Your task to perform on an android device: Open CNN.com Image 0: 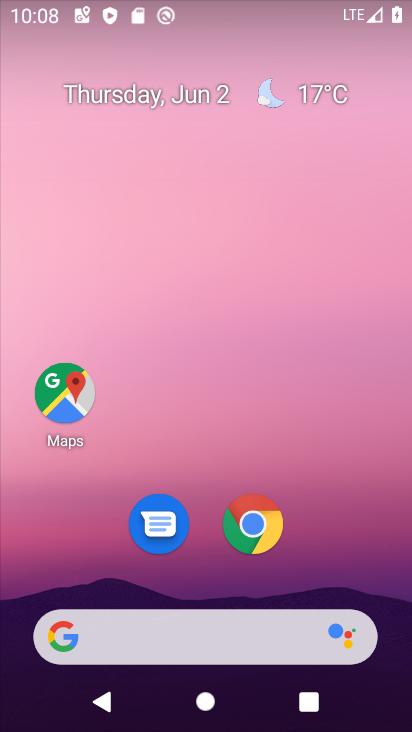
Step 0: click (205, 643)
Your task to perform on an android device: Open CNN.com Image 1: 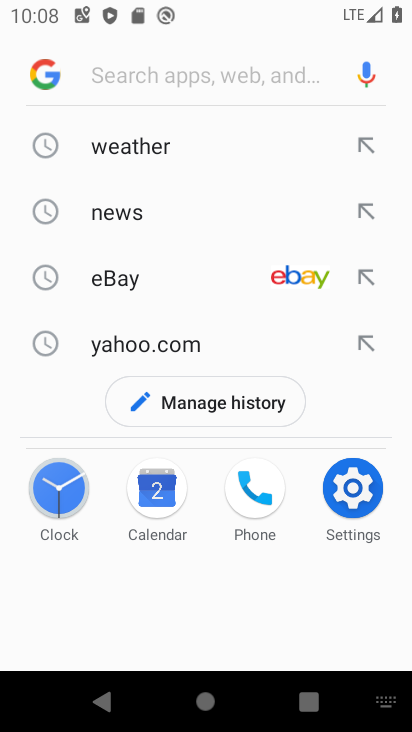
Step 1: type "cnn.com"
Your task to perform on an android device: Open CNN.com Image 2: 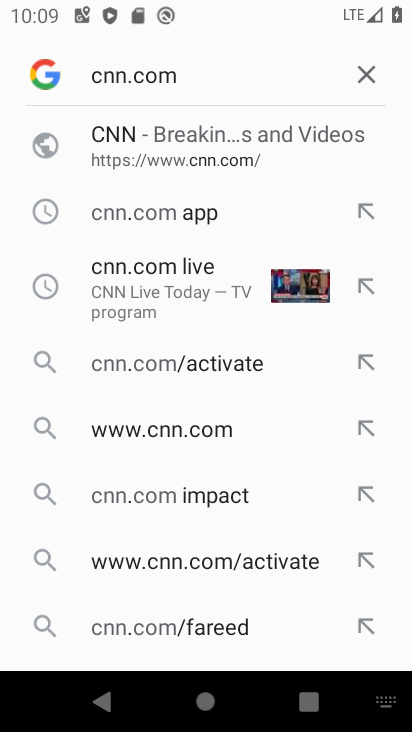
Step 2: click (117, 140)
Your task to perform on an android device: Open CNN.com Image 3: 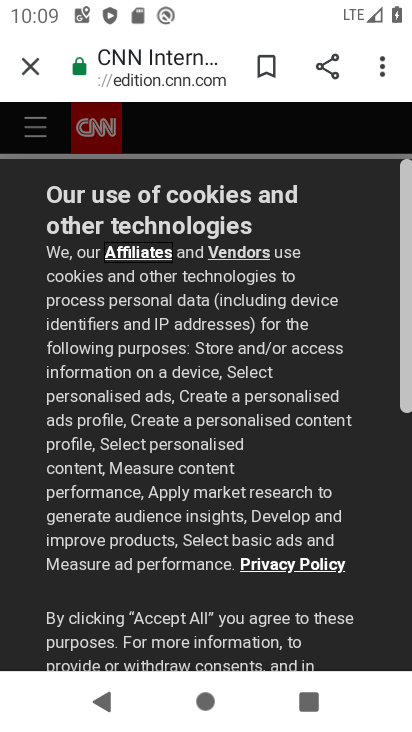
Step 3: task complete